Your task to perform on an android device: When is my next appointment? Image 0: 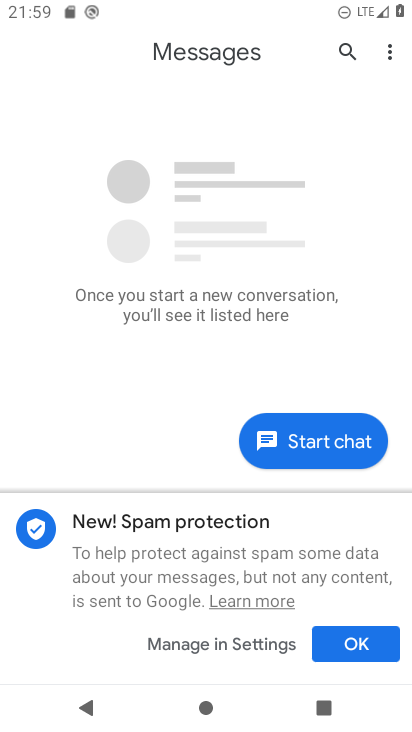
Step 0: press home button
Your task to perform on an android device: When is my next appointment? Image 1: 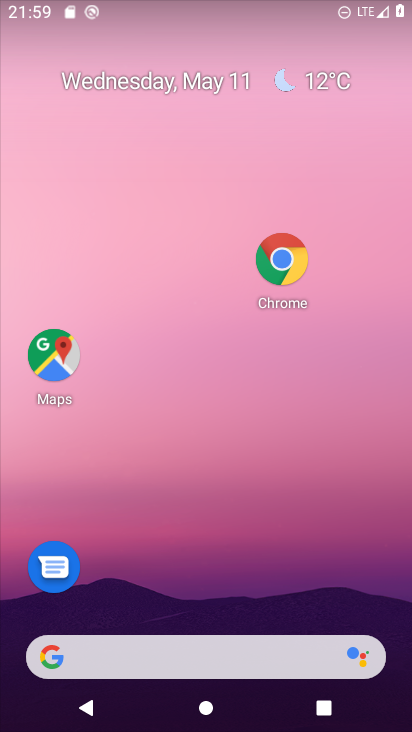
Step 1: drag from (218, 659) to (326, 226)
Your task to perform on an android device: When is my next appointment? Image 2: 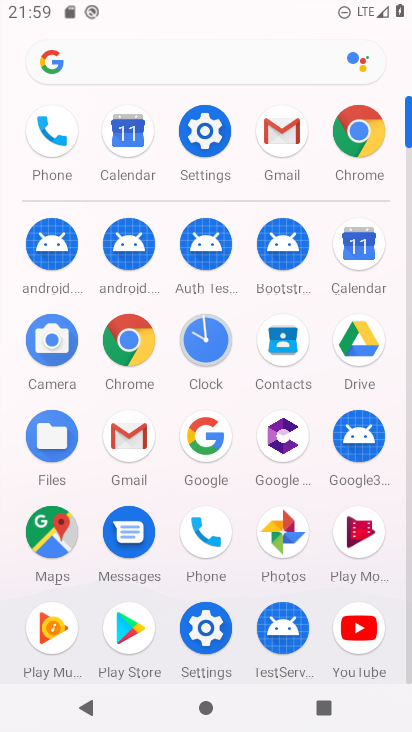
Step 2: click (353, 253)
Your task to perform on an android device: When is my next appointment? Image 3: 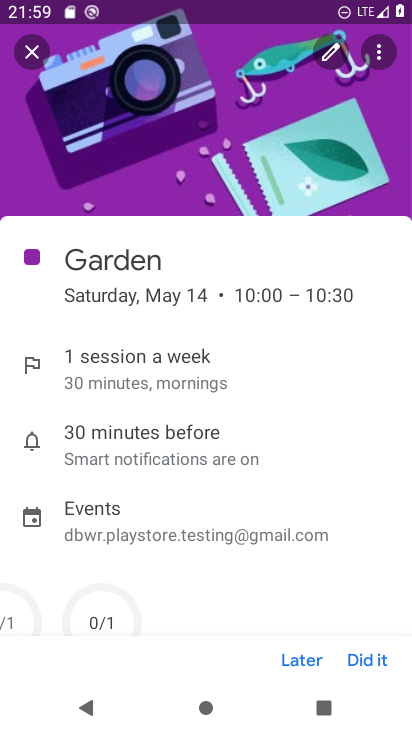
Step 3: click (28, 53)
Your task to perform on an android device: When is my next appointment? Image 4: 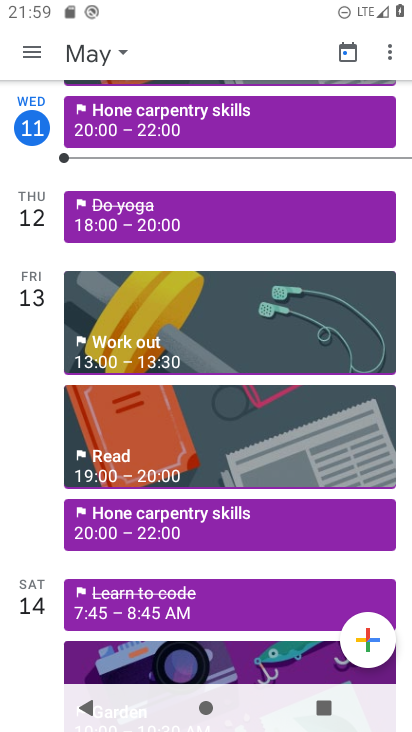
Step 4: click (106, 53)
Your task to perform on an android device: When is my next appointment? Image 5: 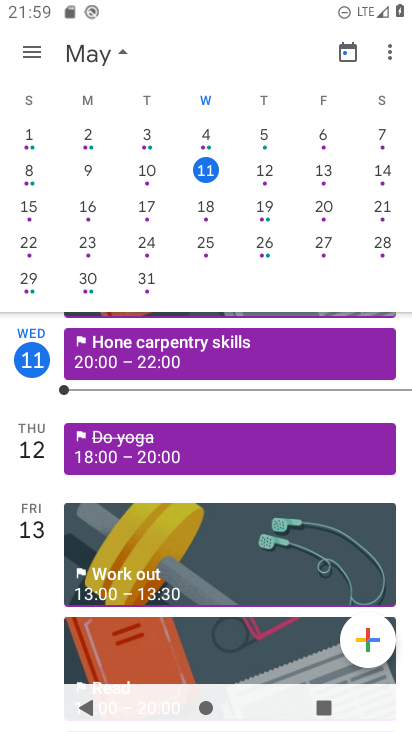
Step 5: click (208, 171)
Your task to perform on an android device: When is my next appointment? Image 6: 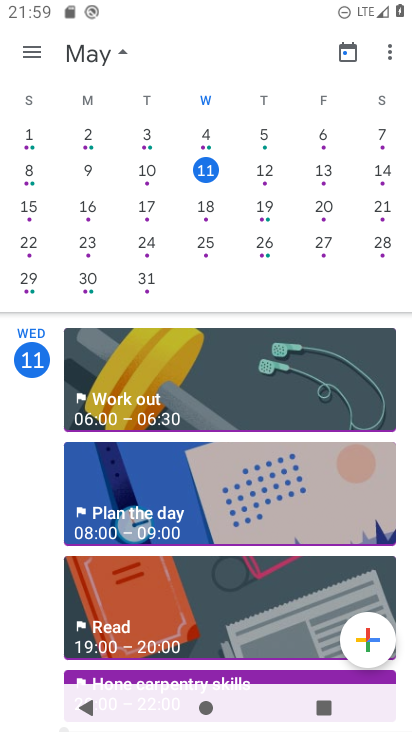
Step 6: click (37, 53)
Your task to perform on an android device: When is my next appointment? Image 7: 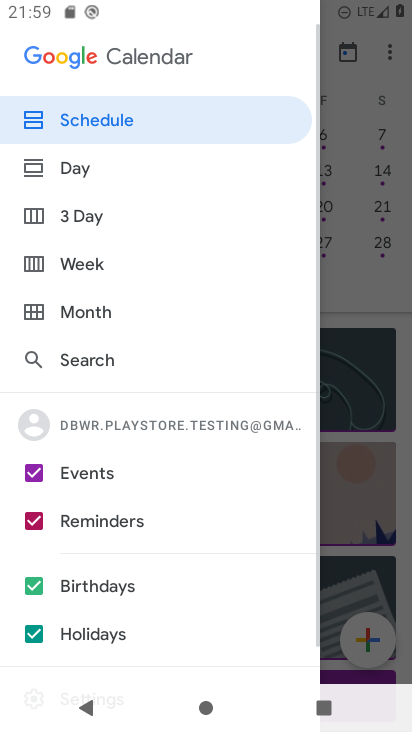
Step 7: click (98, 113)
Your task to perform on an android device: When is my next appointment? Image 8: 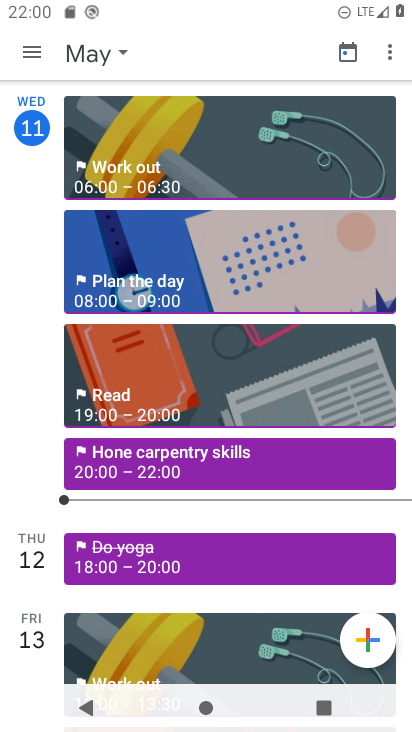
Step 8: task complete